Your task to perform on an android device: Open Google Maps Image 0: 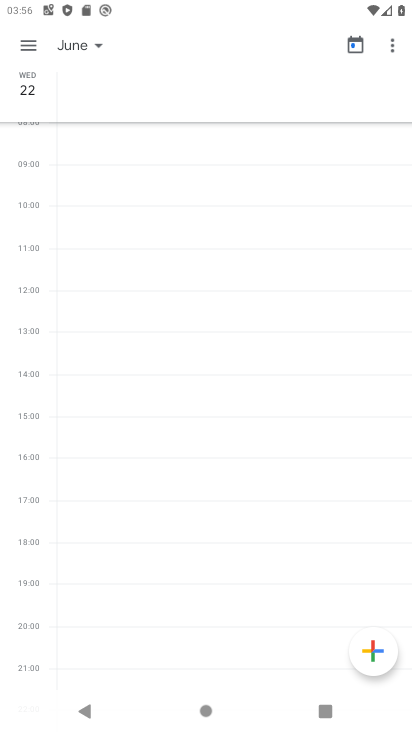
Step 0: press home button
Your task to perform on an android device: Open Google Maps Image 1: 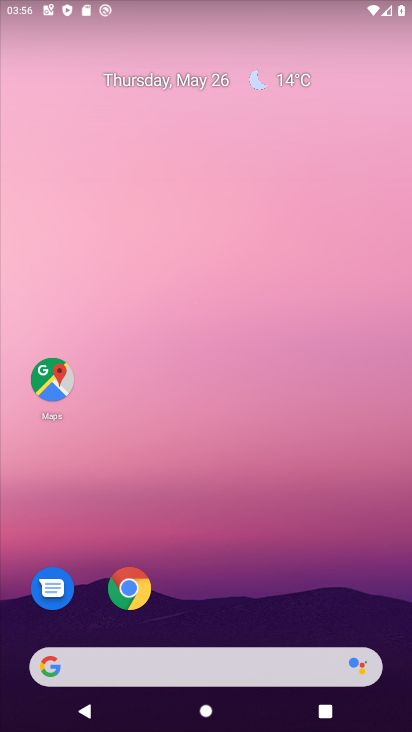
Step 1: drag from (276, 579) to (295, 130)
Your task to perform on an android device: Open Google Maps Image 2: 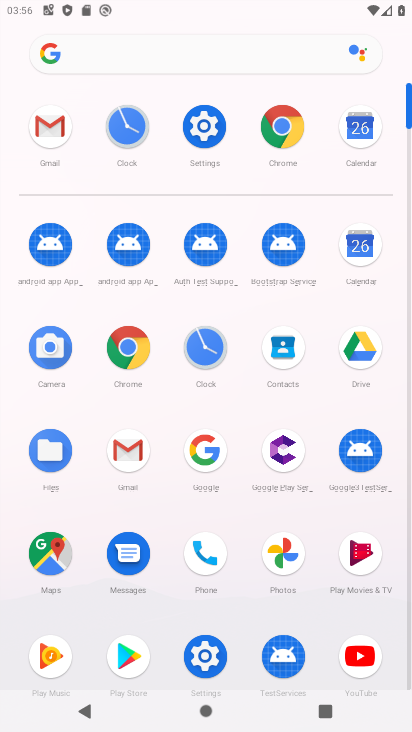
Step 2: click (51, 560)
Your task to perform on an android device: Open Google Maps Image 3: 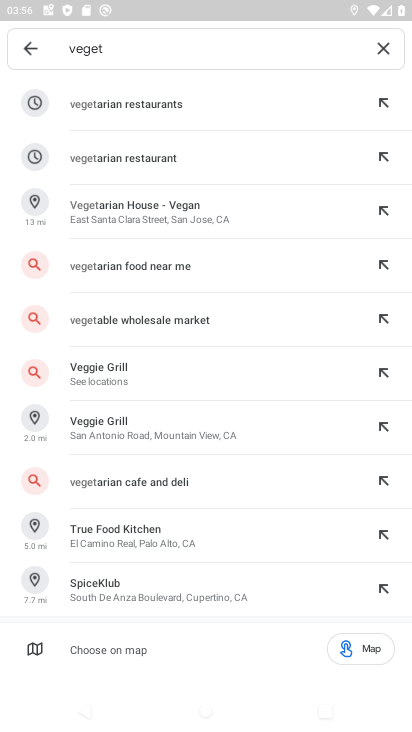
Step 3: task complete